Your task to perform on an android device: What's on my calendar tomorrow? Image 0: 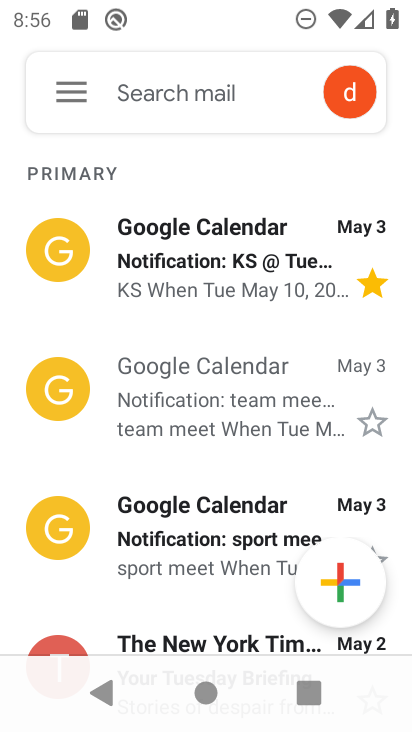
Step 0: press home button
Your task to perform on an android device: What's on my calendar tomorrow? Image 1: 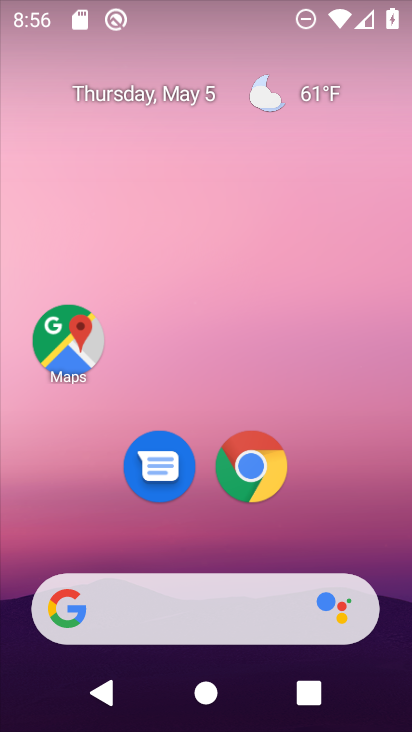
Step 1: drag from (261, 625) to (324, 253)
Your task to perform on an android device: What's on my calendar tomorrow? Image 2: 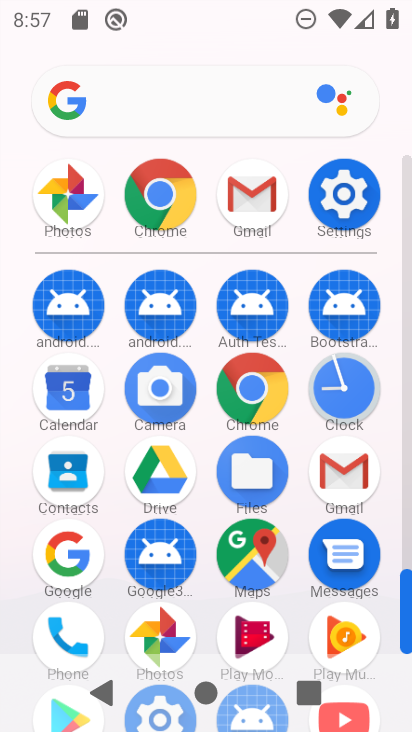
Step 2: click (87, 389)
Your task to perform on an android device: What's on my calendar tomorrow? Image 3: 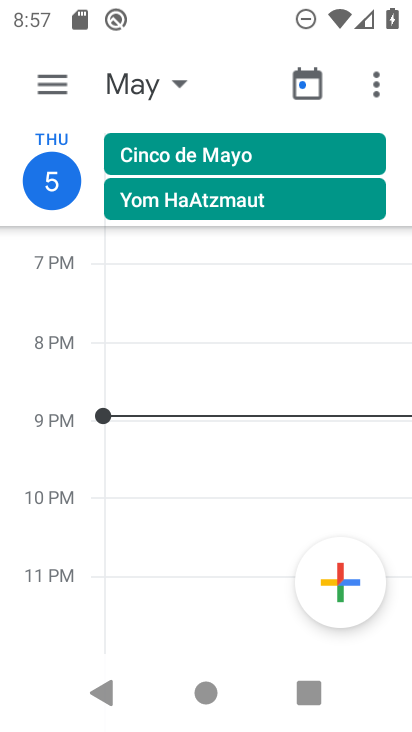
Step 3: click (54, 93)
Your task to perform on an android device: What's on my calendar tomorrow? Image 4: 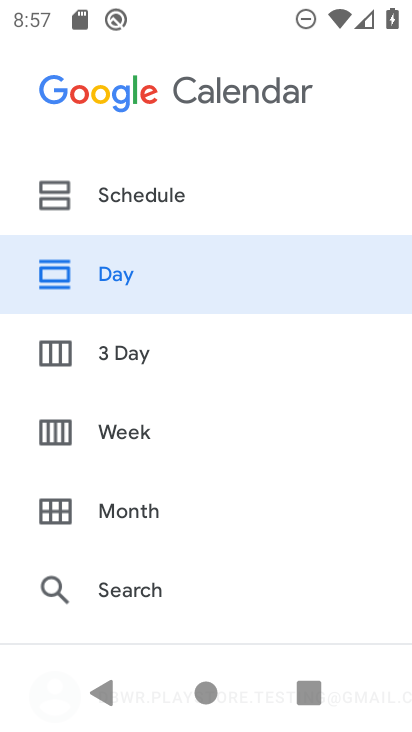
Step 4: click (133, 206)
Your task to perform on an android device: What's on my calendar tomorrow? Image 5: 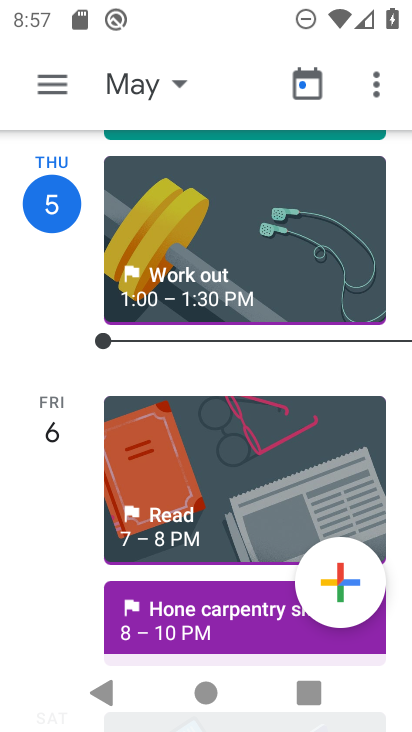
Step 5: click (49, 438)
Your task to perform on an android device: What's on my calendar tomorrow? Image 6: 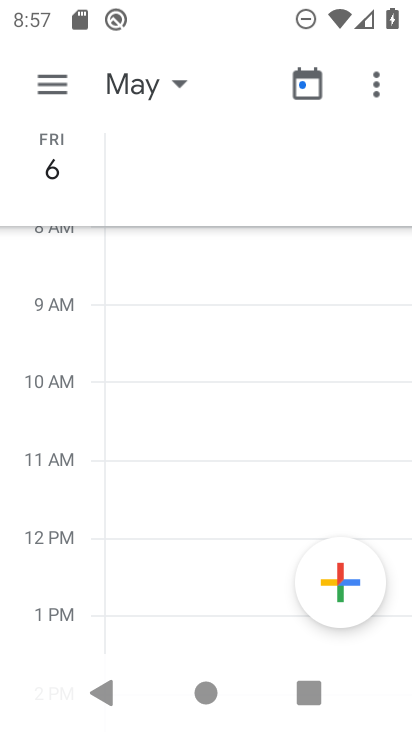
Step 6: task complete